Your task to perform on an android device: Open Amazon Image 0: 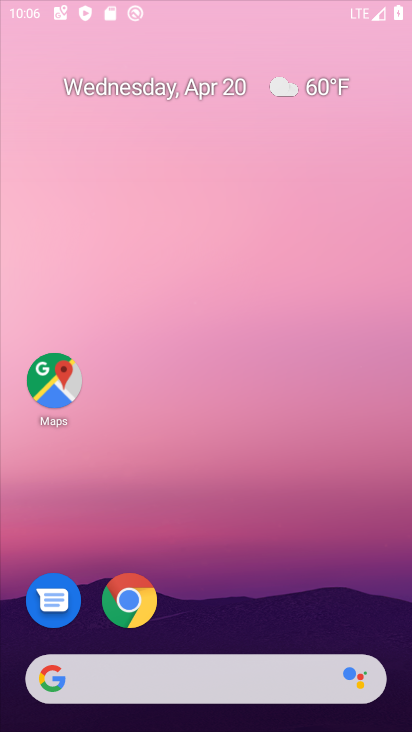
Step 0: drag from (233, 639) to (236, 15)
Your task to perform on an android device: Open Amazon Image 1: 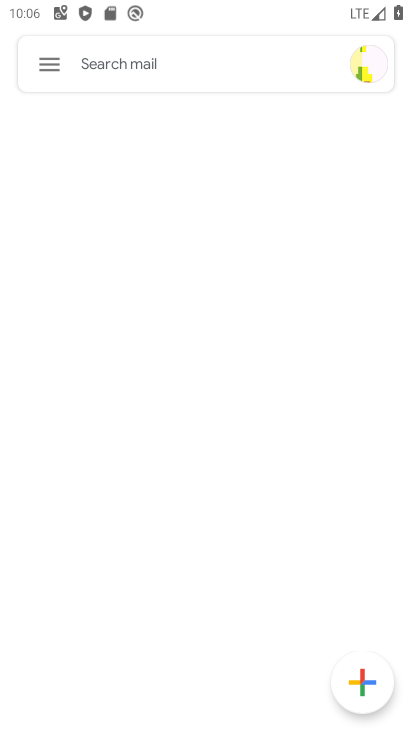
Step 1: press home button
Your task to perform on an android device: Open Amazon Image 2: 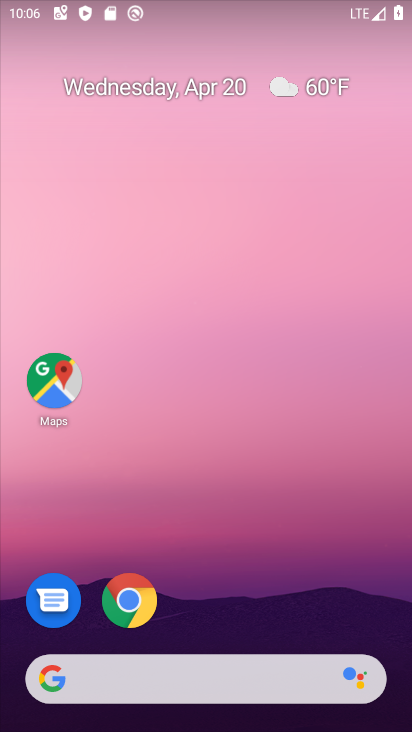
Step 2: click (119, 588)
Your task to perform on an android device: Open Amazon Image 3: 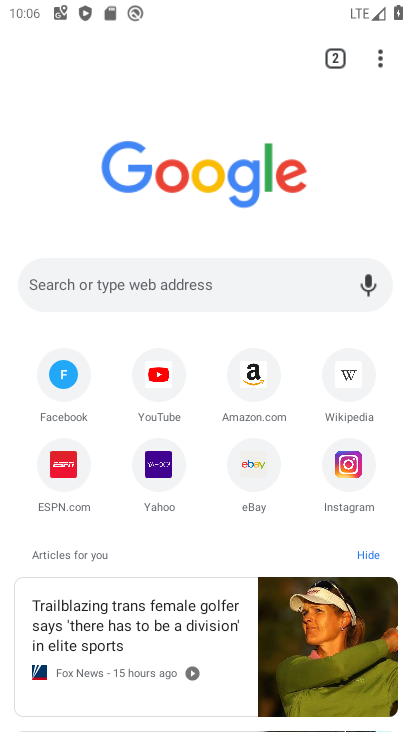
Step 3: click (257, 365)
Your task to perform on an android device: Open Amazon Image 4: 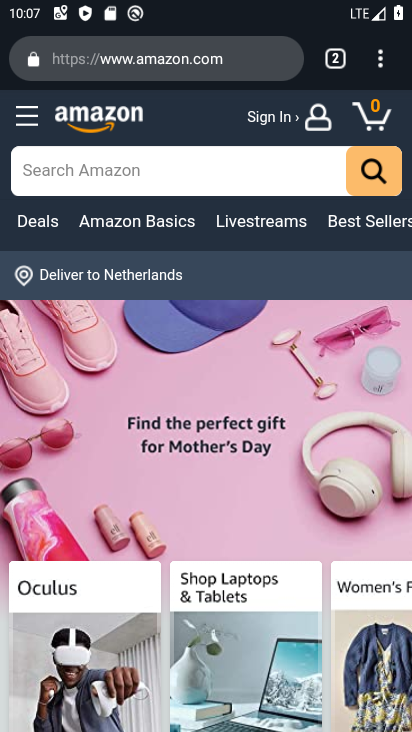
Step 4: task complete